Your task to perform on an android device: toggle improve location accuracy Image 0: 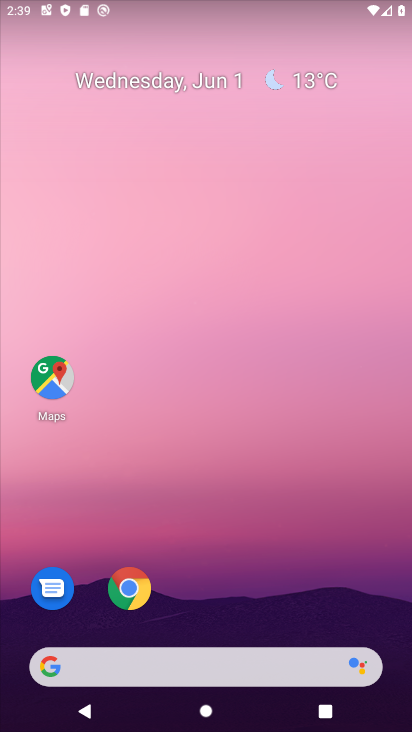
Step 0: drag from (209, 590) to (284, 74)
Your task to perform on an android device: toggle improve location accuracy Image 1: 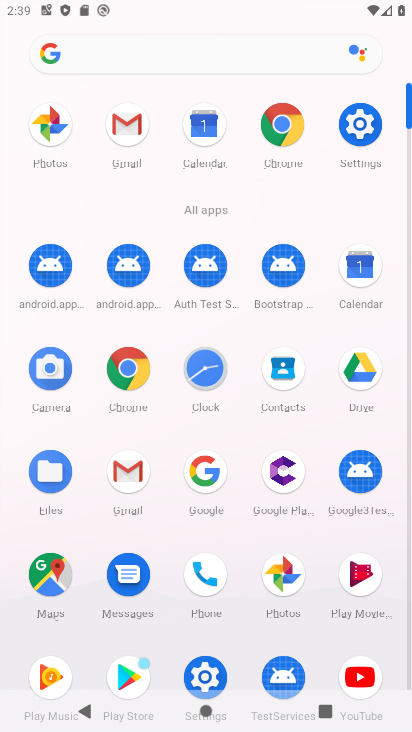
Step 1: click (361, 102)
Your task to perform on an android device: toggle improve location accuracy Image 2: 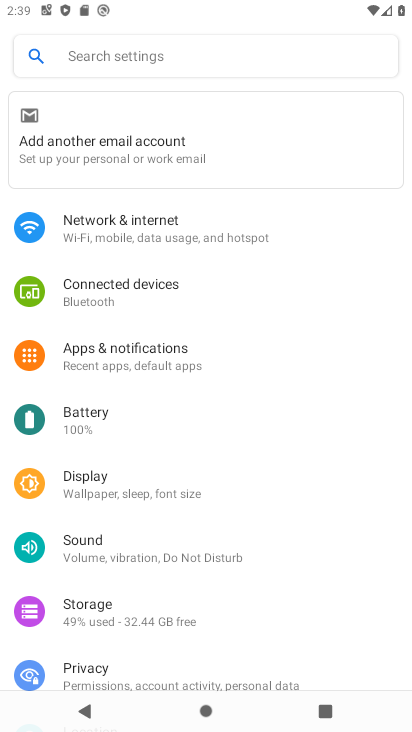
Step 2: drag from (126, 650) to (190, 224)
Your task to perform on an android device: toggle improve location accuracy Image 3: 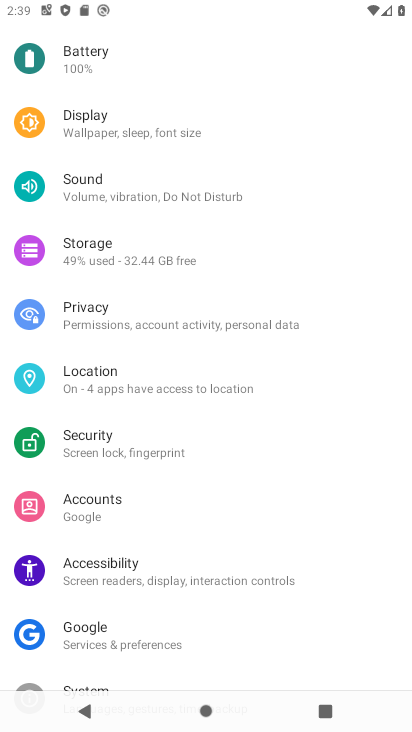
Step 3: click (92, 372)
Your task to perform on an android device: toggle improve location accuracy Image 4: 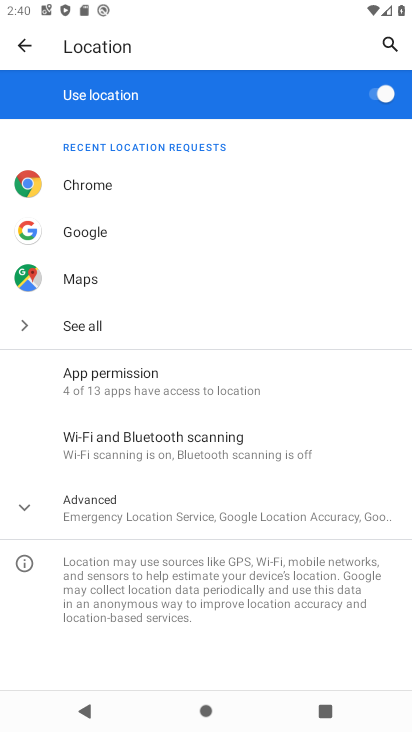
Step 4: click (175, 521)
Your task to perform on an android device: toggle improve location accuracy Image 5: 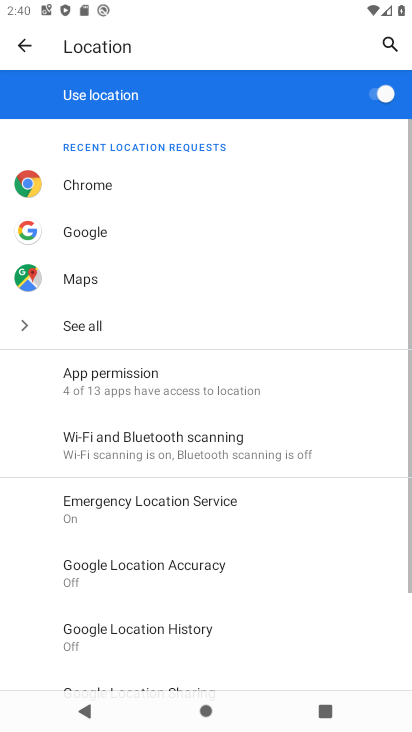
Step 5: click (190, 574)
Your task to perform on an android device: toggle improve location accuracy Image 6: 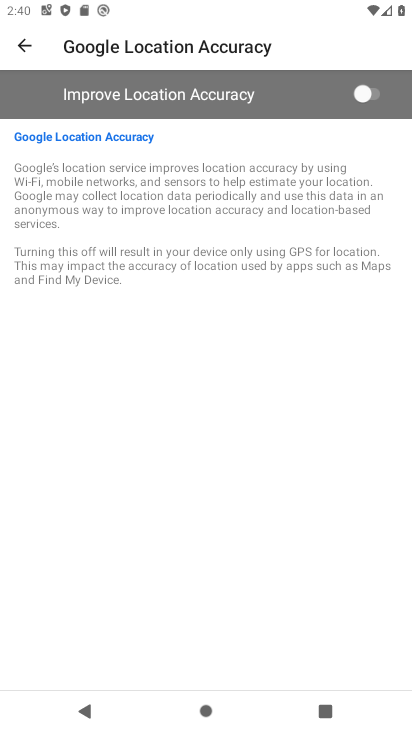
Step 6: click (374, 90)
Your task to perform on an android device: toggle improve location accuracy Image 7: 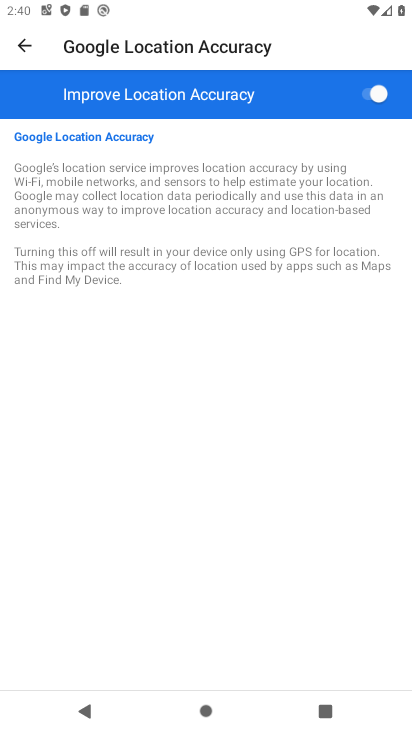
Step 7: task complete